Your task to perform on an android device: Open Youtube and go to the subscriptions tab Image 0: 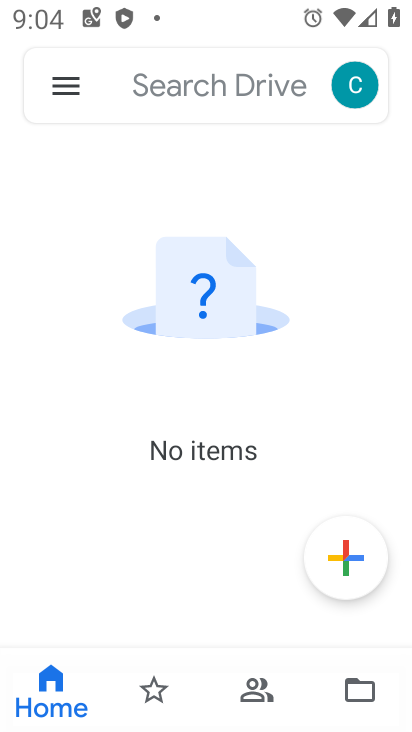
Step 0: press home button
Your task to perform on an android device: Open Youtube and go to the subscriptions tab Image 1: 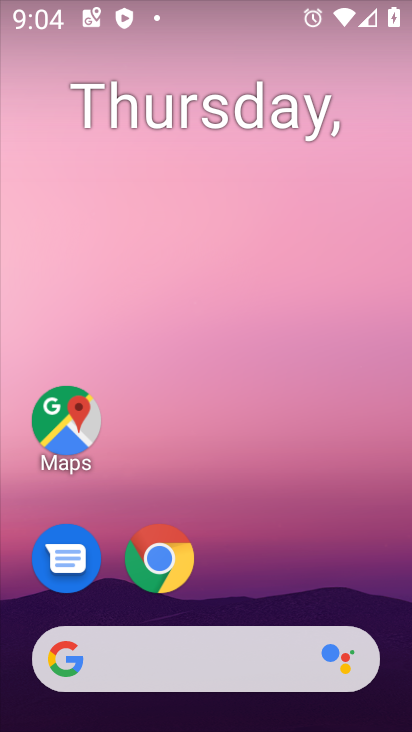
Step 1: drag from (344, 572) to (356, 231)
Your task to perform on an android device: Open Youtube and go to the subscriptions tab Image 2: 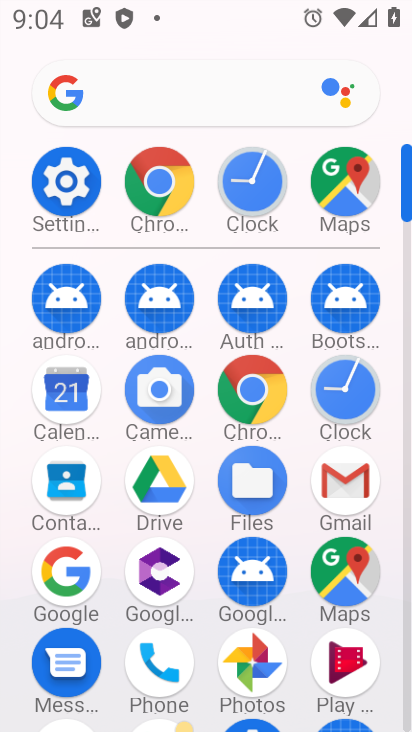
Step 2: drag from (392, 594) to (407, 389)
Your task to perform on an android device: Open Youtube and go to the subscriptions tab Image 3: 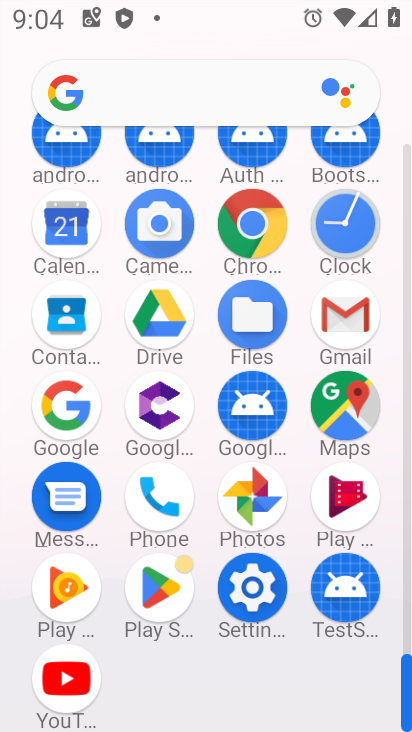
Step 3: click (72, 675)
Your task to perform on an android device: Open Youtube and go to the subscriptions tab Image 4: 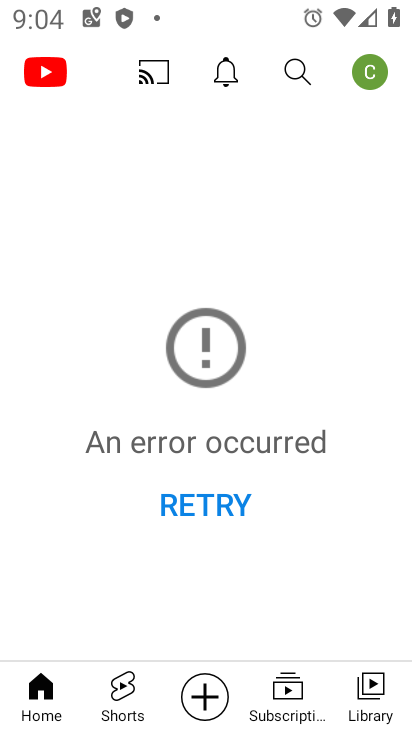
Step 4: click (276, 690)
Your task to perform on an android device: Open Youtube and go to the subscriptions tab Image 5: 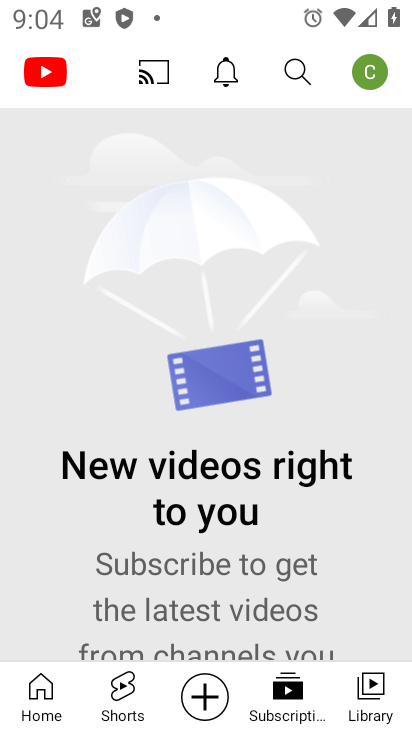
Step 5: task complete